Your task to perform on an android device: Do I have any events tomorrow? Image 0: 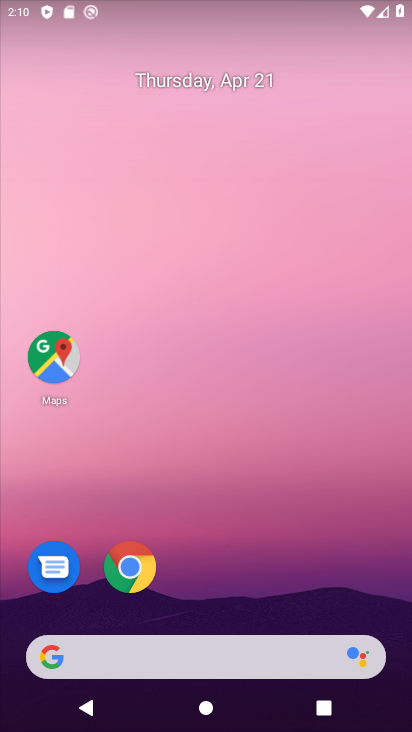
Step 0: drag from (256, 574) to (274, 26)
Your task to perform on an android device: Do I have any events tomorrow? Image 1: 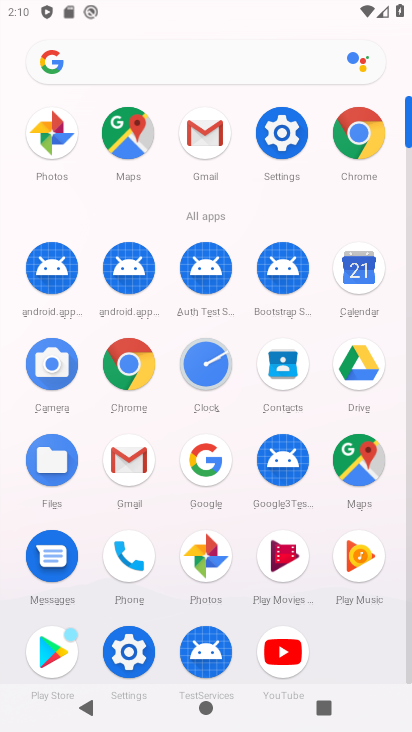
Step 1: click (359, 259)
Your task to perform on an android device: Do I have any events tomorrow? Image 2: 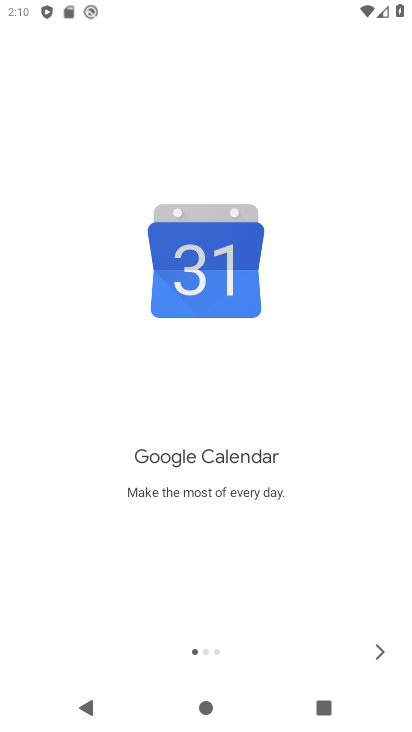
Step 2: click (377, 647)
Your task to perform on an android device: Do I have any events tomorrow? Image 3: 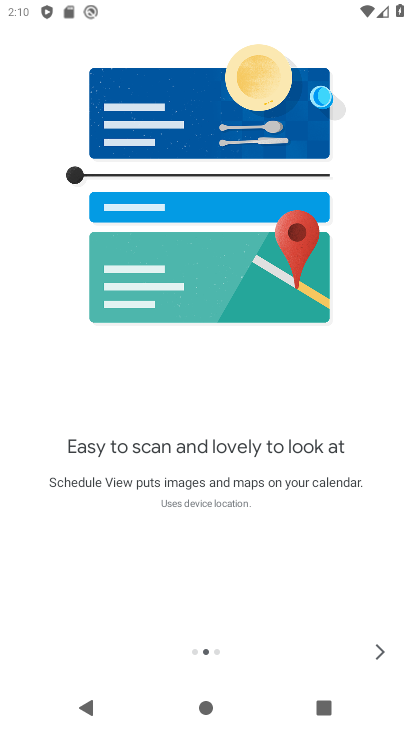
Step 3: click (377, 647)
Your task to perform on an android device: Do I have any events tomorrow? Image 4: 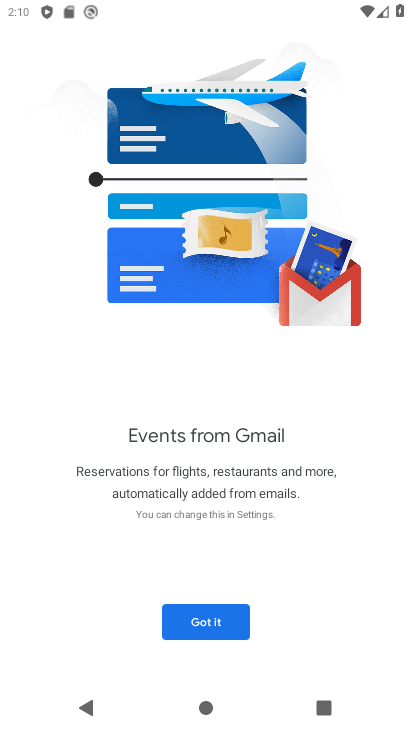
Step 4: click (196, 631)
Your task to perform on an android device: Do I have any events tomorrow? Image 5: 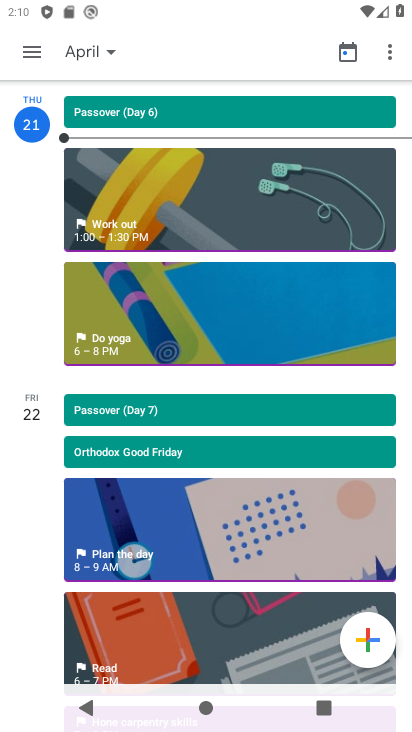
Step 5: click (39, 56)
Your task to perform on an android device: Do I have any events tomorrow? Image 6: 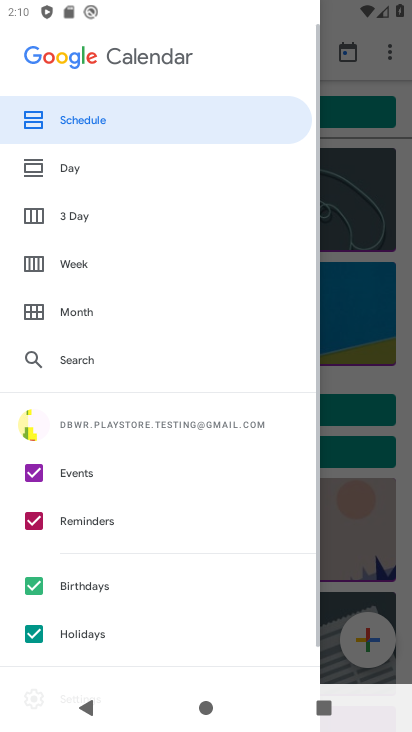
Step 6: click (215, 127)
Your task to perform on an android device: Do I have any events tomorrow? Image 7: 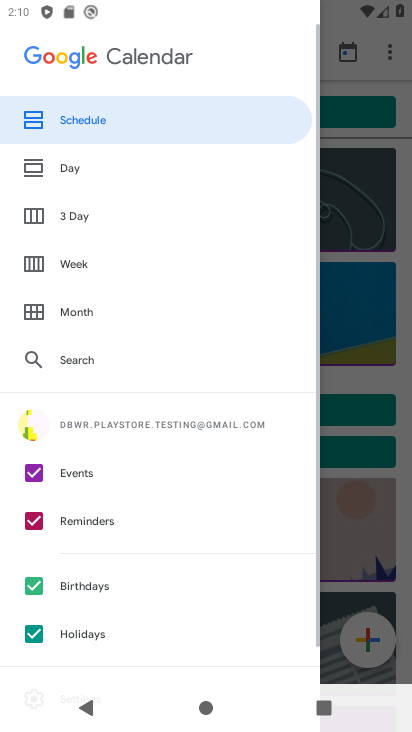
Step 7: click (50, 122)
Your task to perform on an android device: Do I have any events tomorrow? Image 8: 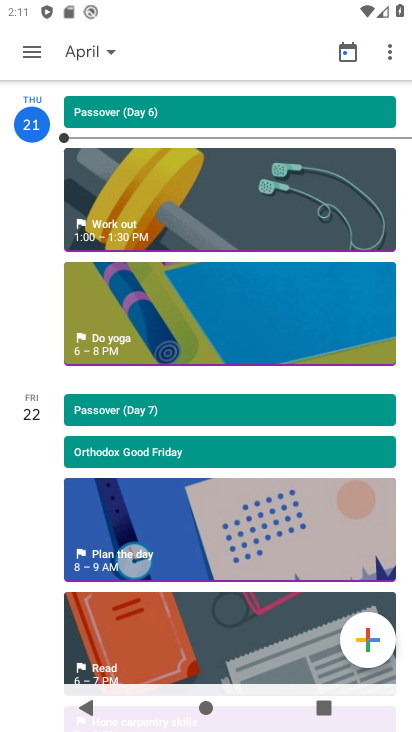
Step 8: task complete